Your task to perform on an android device: Search for Italian restaurants on Maps Image 0: 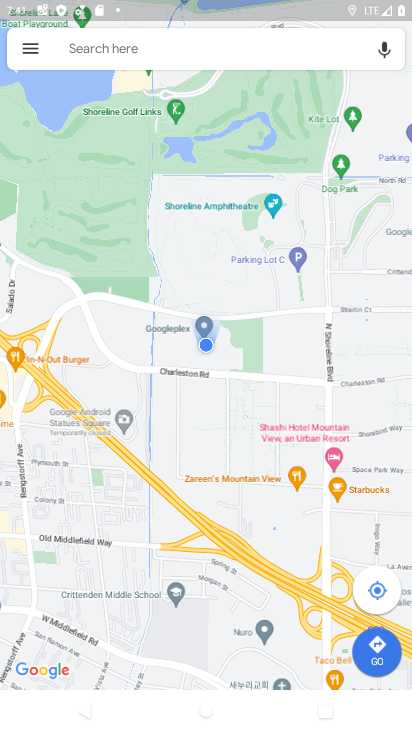
Step 0: press home button
Your task to perform on an android device: Search for Italian restaurants on Maps Image 1: 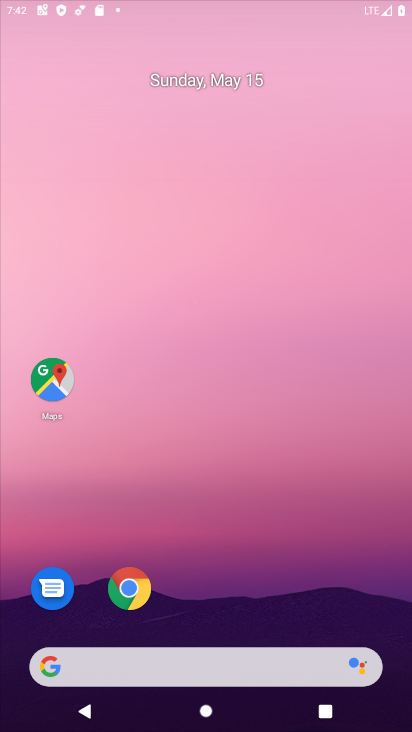
Step 1: drag from (337, 605) to (287, 82)
Your task to perform on an android device: Search for Italian restaurants on Maps Image 2: 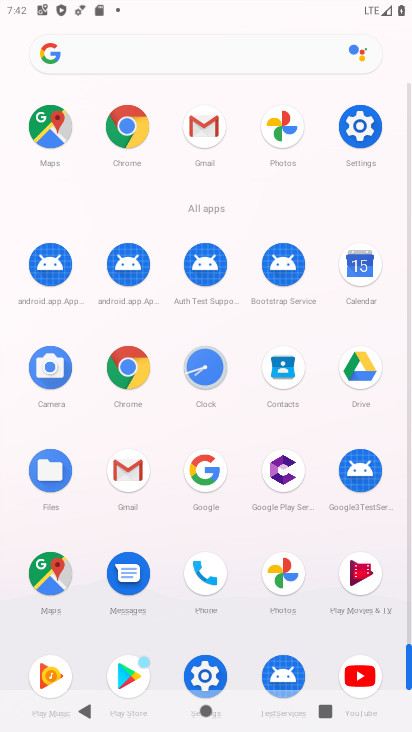
Step 2: click (49, 599)
Your task to perform on an android device: Search for Italian restaurants on Maps Image 3: 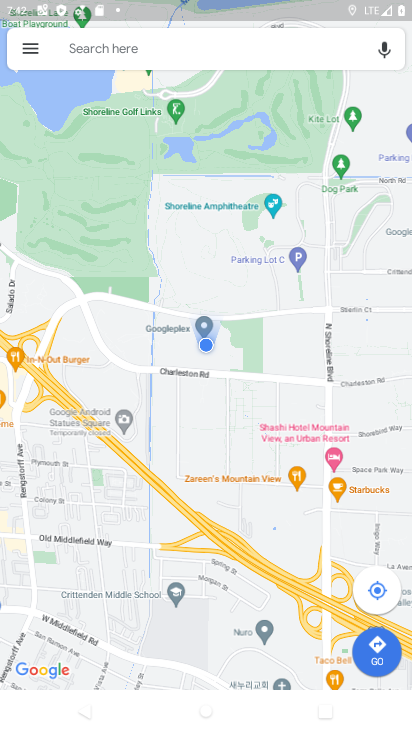
Step 3: click (173, 43)
Your task to perform on an android device: Search for Italian restaurants on Maps Image 4: 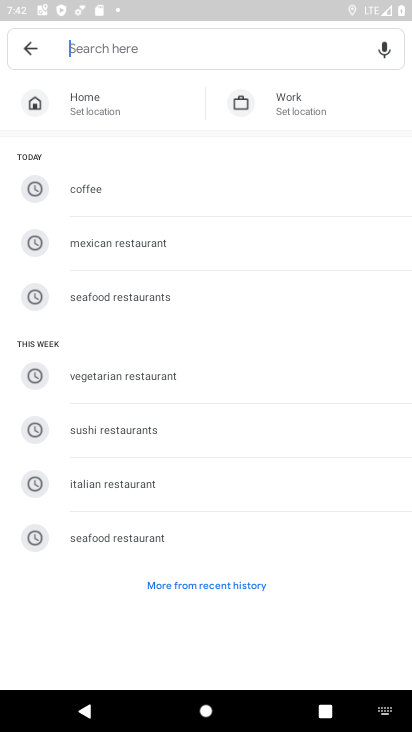
Step 4: click (169, 479)
Your task to perform on an android device: Search for Italian restaurants on Maps Image 5: 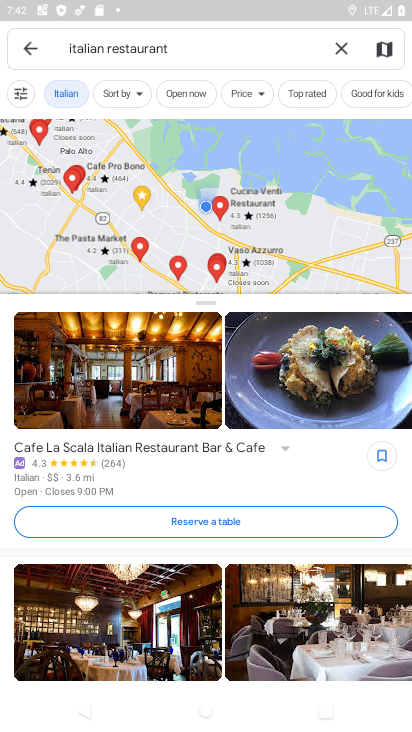
Step 5: task complete